Your task to perform on an android device: Open internet settings Image 0: 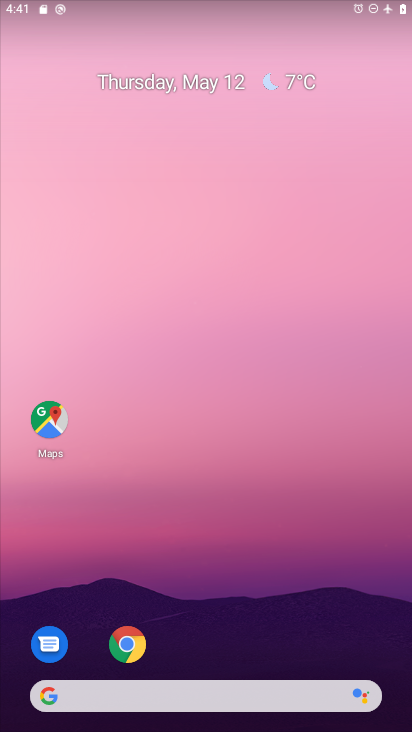
Step 0: drag from (200, 626) to (294, 268)
Your task to perform on an android device: Open internet settings Image 1: 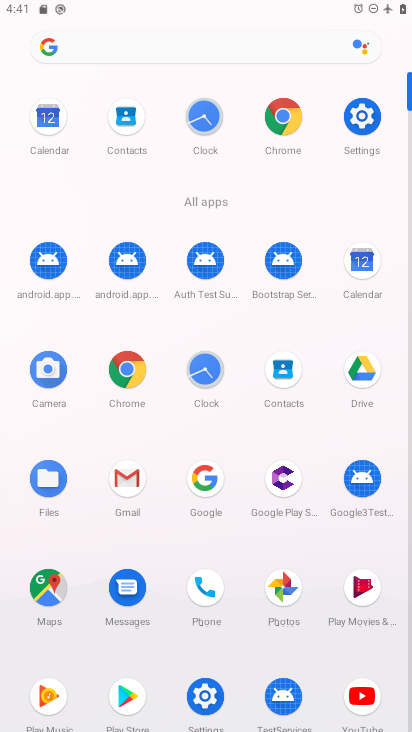
Step 1: click (363, 137)
Your task to perform on an android device: Open internet settings Image 2: 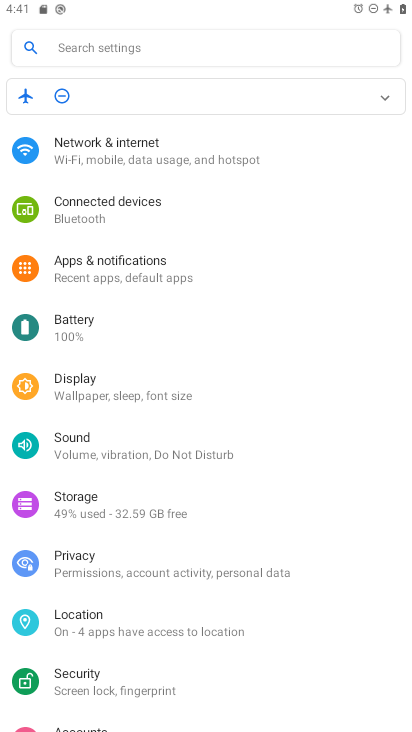
Step 2: click (193, 164)
Your task to perform on an android device: Open internet settings Image 3: 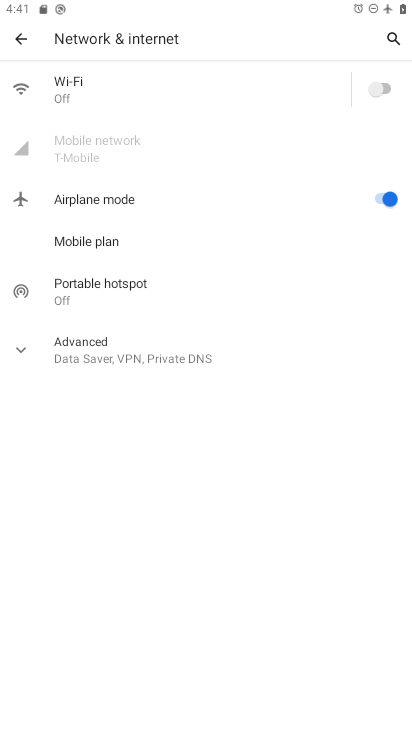
Step 3: task complete